Your task to perform on an android device: move a message to another label in the gmail app Image 0: 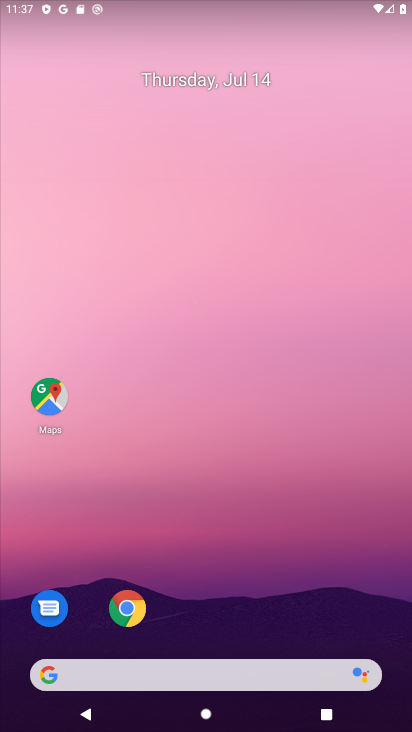
Step 0: drag from (298, 488) to (299, 0)
Your task to perform on an android device: move a message to another label in the gmail app Image 1: 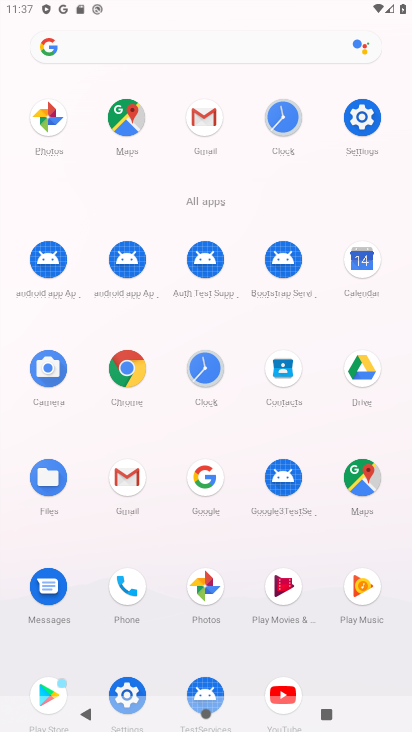
Step 1: click (206, 110)
Your task to perform on an android device: move a message to another label in the gmail app Image 2: 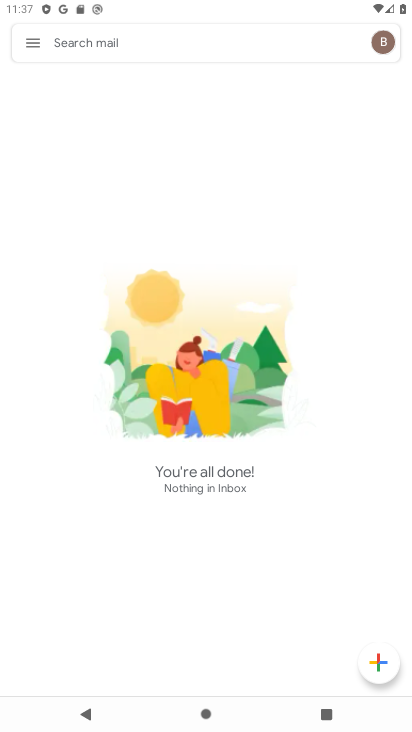
Step 2: task complete